Your task to perform on an android device: What's the weather today? Image 0: 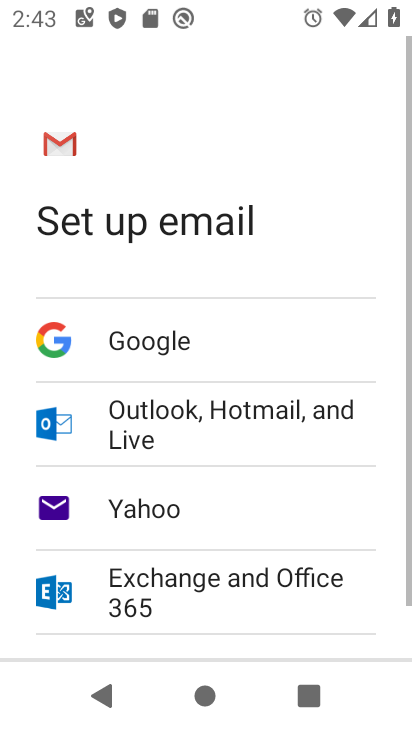
Step 0: drag from (209, 568) to (280, 272)
Your task to perform on an android device: What's the weather today? Image 1: 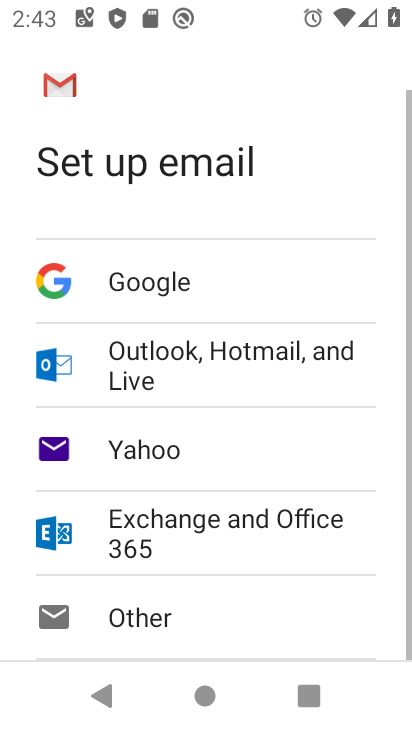
Step 1: press home button
Your task to perform on an android device: What's the weather today? Image 2: 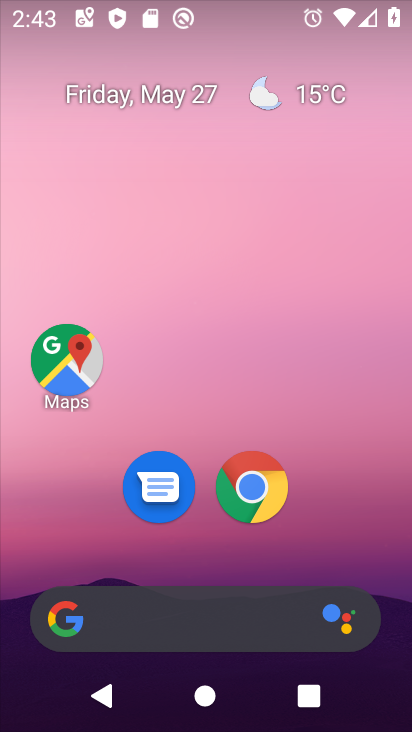
Step 2: click (153, 613)
Your task to perform on an android device: What's the weather today? Image 3: 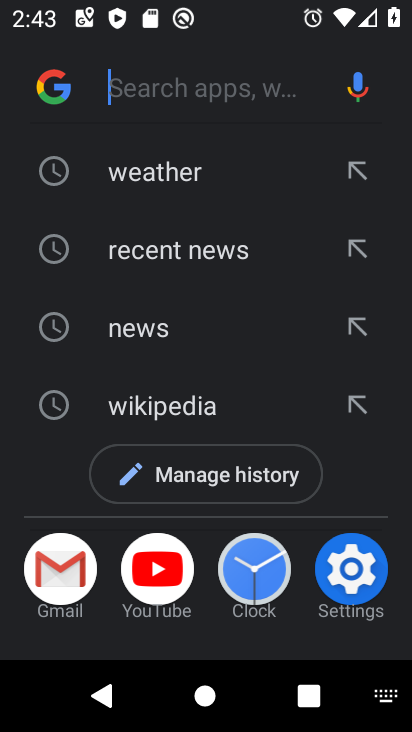
Step 3: click (163, 176)
Your task to perform on an android device: What's the weather today? Image 4: 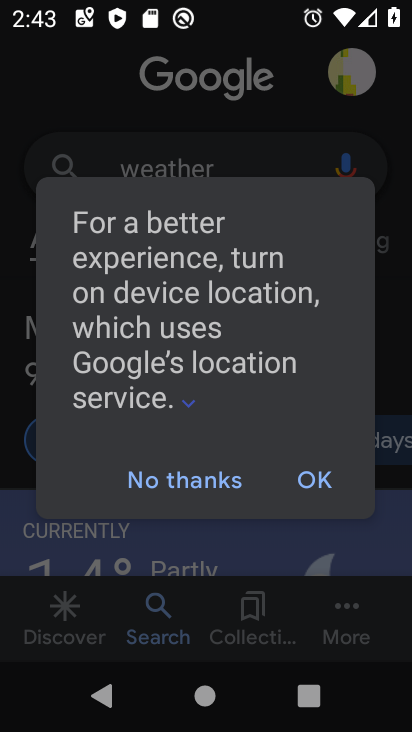
Step 4: drag from (168, 502) to (222, 216)
Your task to perform on an android device: What's the weather today? Image 5: 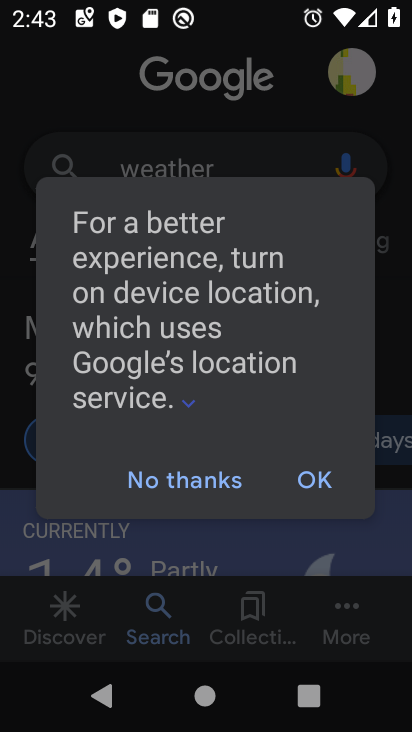
Step 5: click (305, 467)
Your task to perform on an android device: What's the weather today? Image 6: 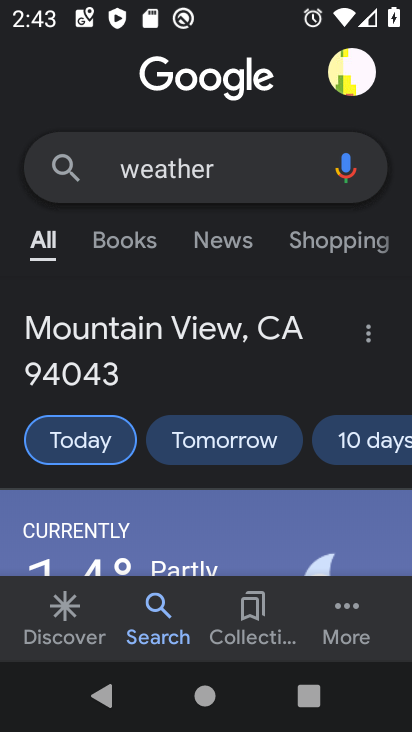
Step 6: task complete